Your task to perform on an android device: What's the time in New York? Image 0: 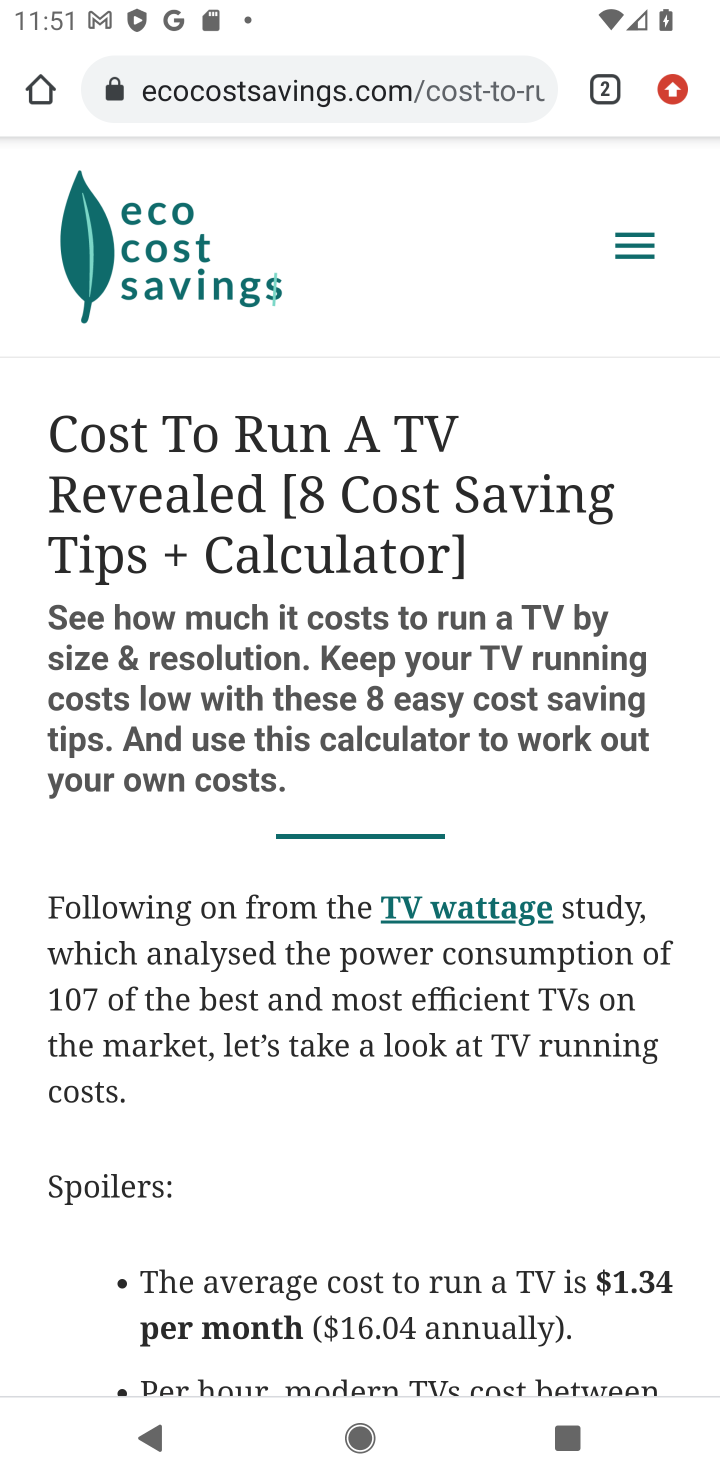
Step 0: press home button
Your task to perform on an android device: What's the time in New York? Image 1: 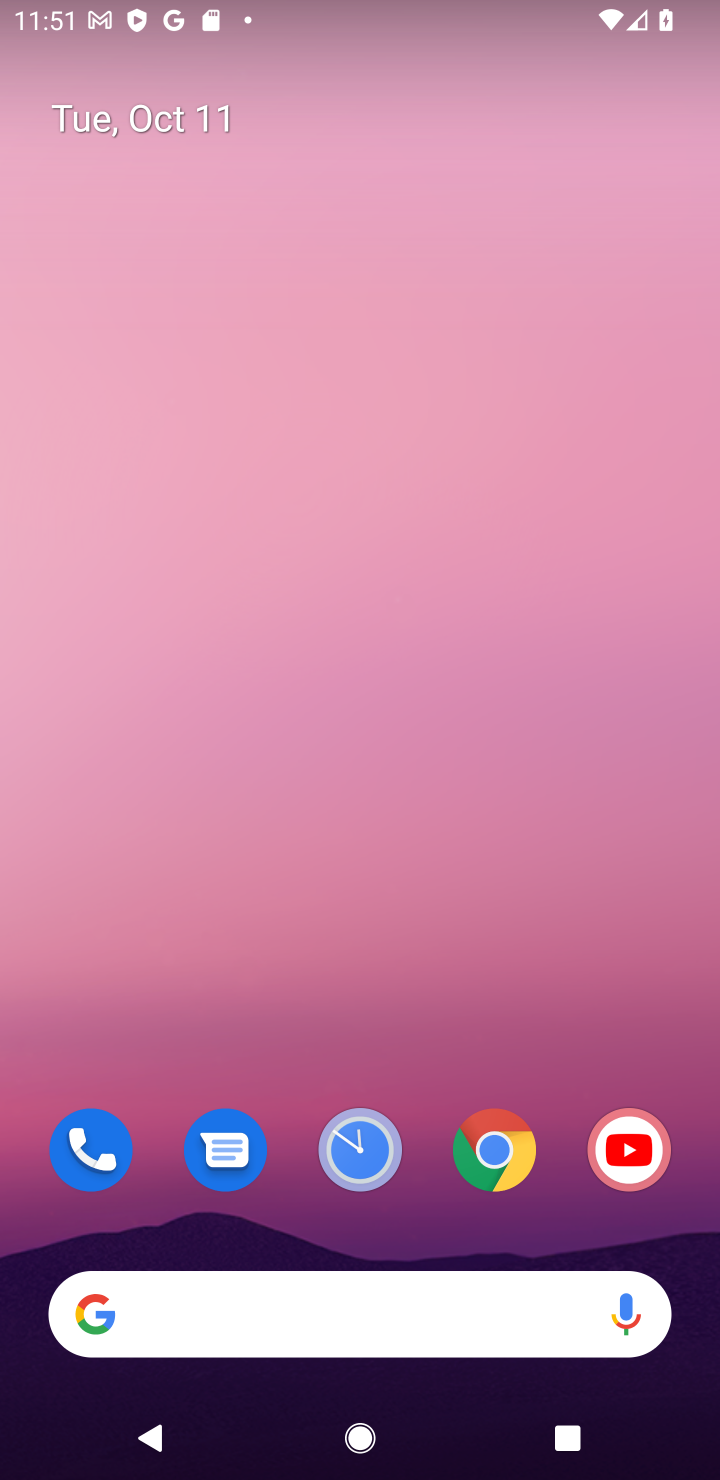
Step 1: click (360, 1318)
Your task to perform on an android device: What's the time in New York? Image 2: 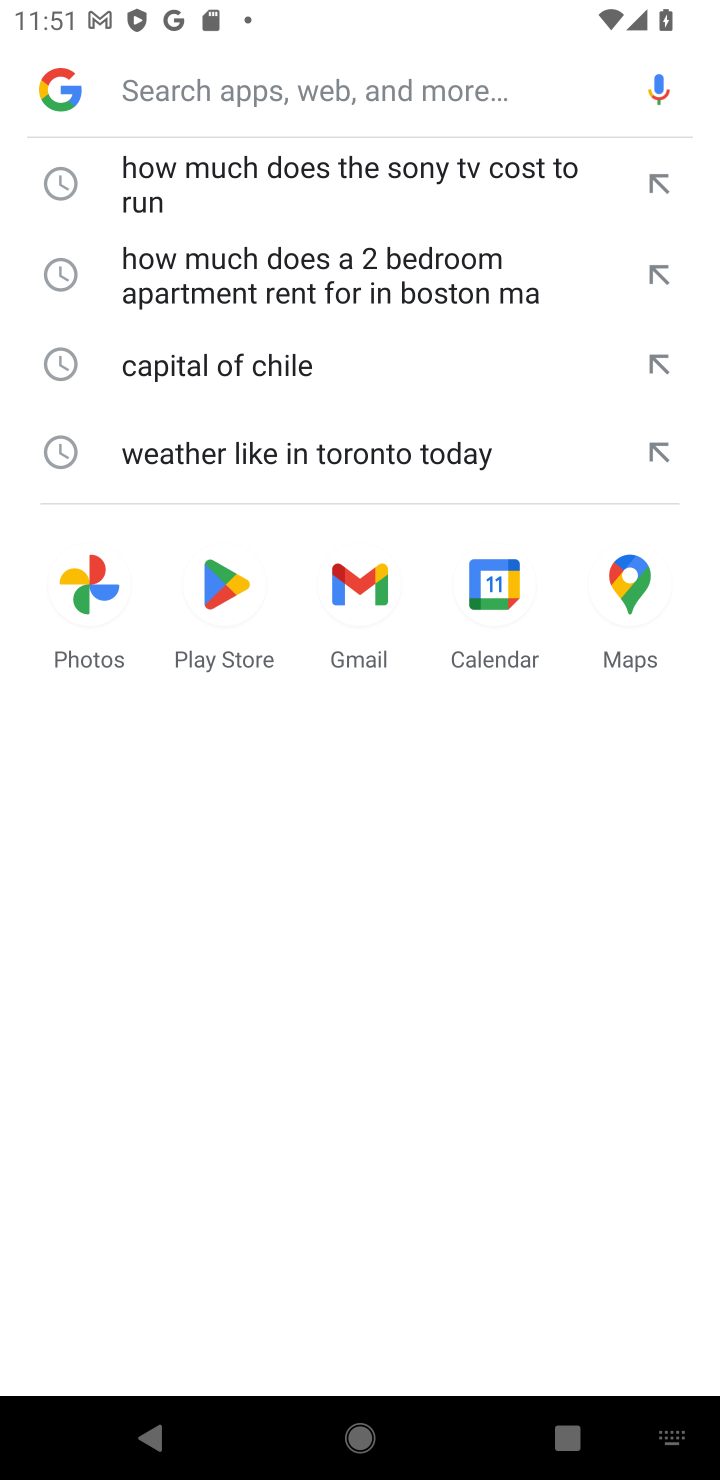
Step 2: type "whats the time in new york"
Your task to perform on an android device: What's the time in New York? Image 3: 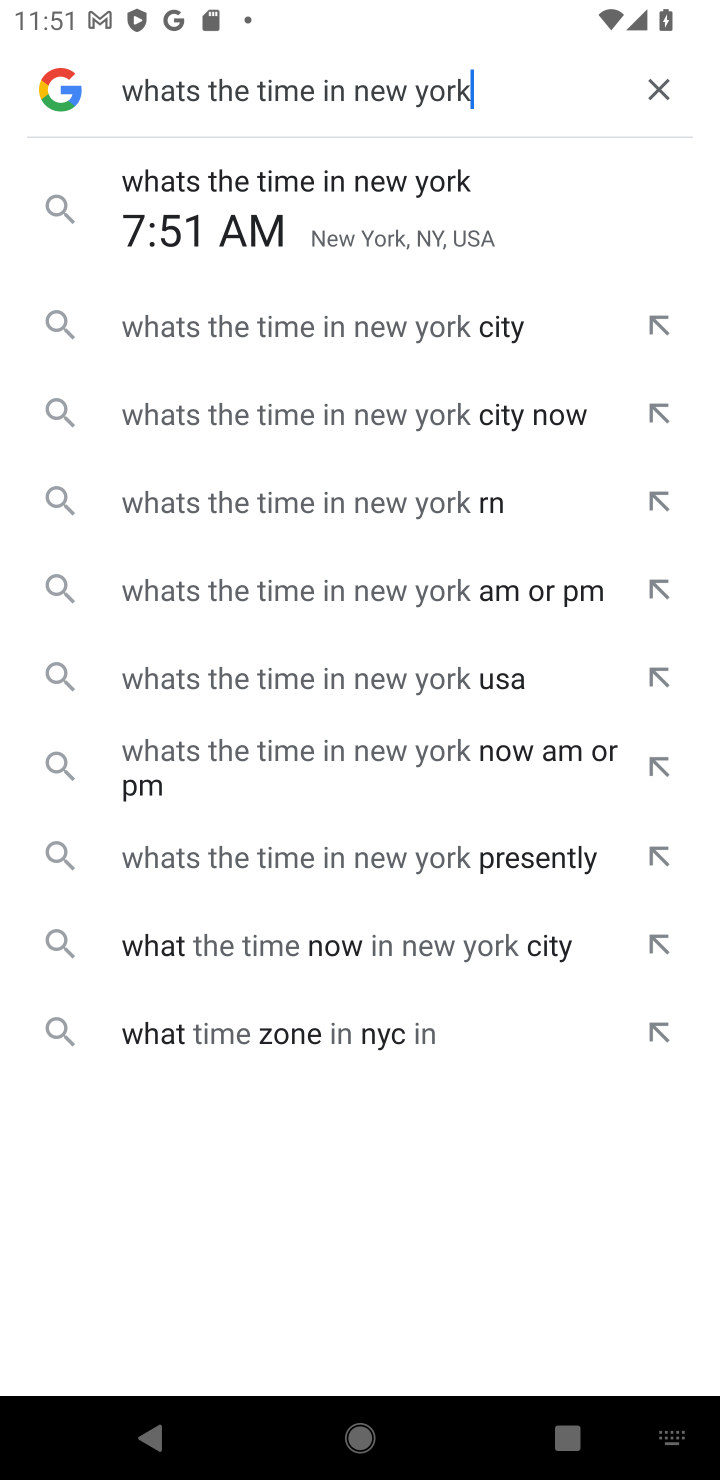
Step 3: click (322, 185)
Your task to perform on an android device: What's the time in New York? Image 4: 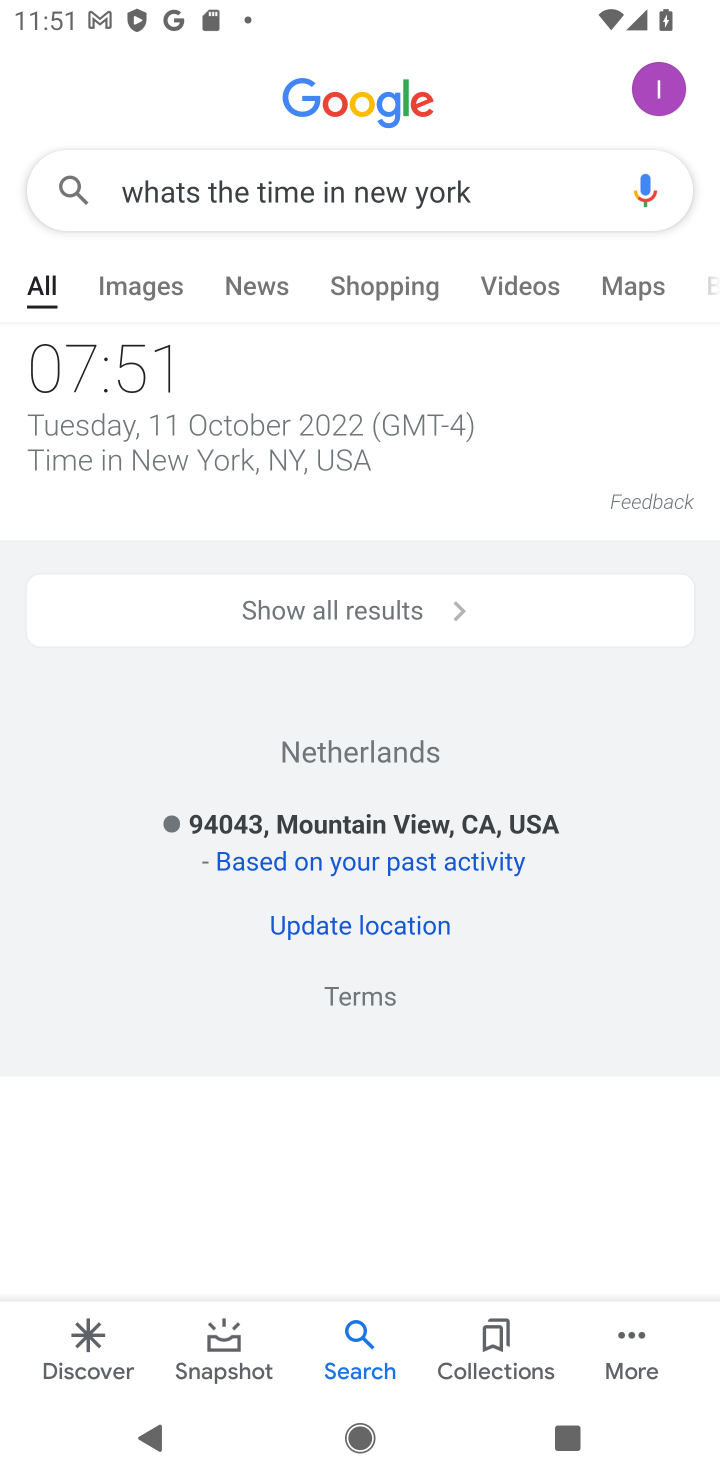
Step 4: task complete